Your task to perform on an android device: toggle show notifications on the lock screen Image 0: 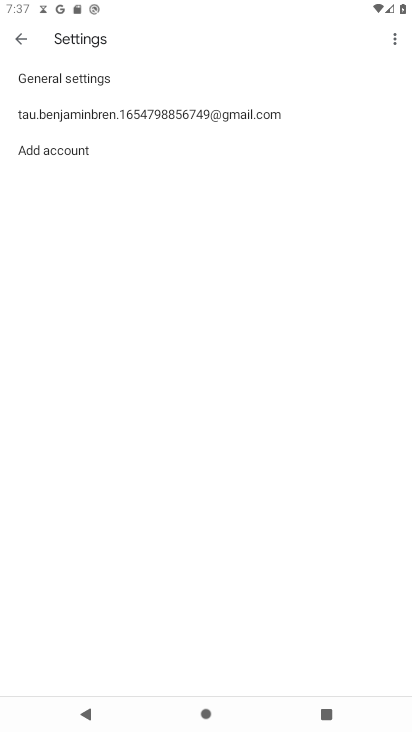
Step 0: press home button
Your task to perform on an android device: toggle show notifications on the lock screen Image 1: 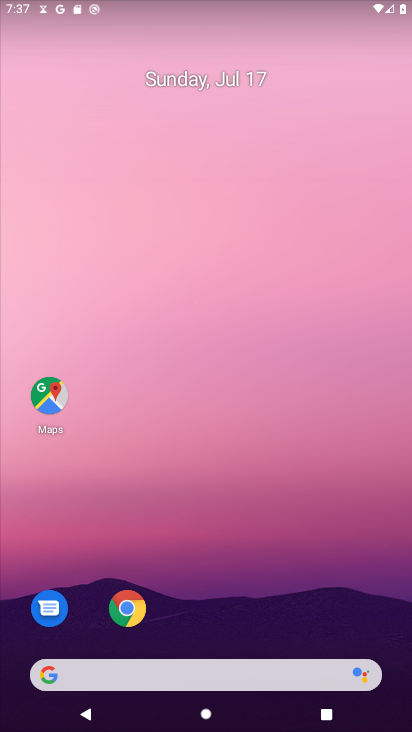
Step 1: drag from (290, 652) to (328, 377)
Your task to perform on an android device: toggle show notifications on the lock screen Image 2: 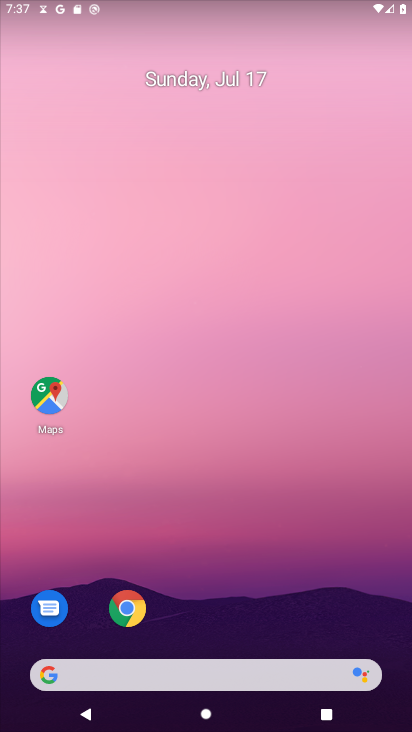
Step 2: drag from (153, 631) to (161, 193)
Your task to perform on an android device: toggle show notifications on the lock screen Image 3: 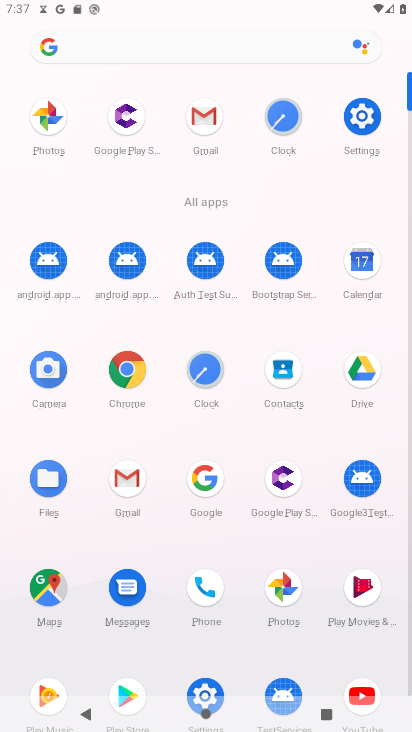
Step 3: click (372, 125)
Your task to perform on an android device: toggle show notifications on the lock screen Image 4: 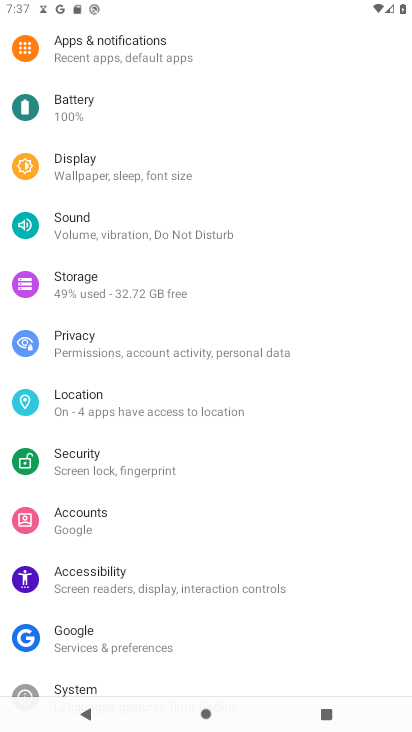
Step 4: click (75, 350)
Your task to perform on an android device: toggle show notifications on the lock screen Image 5: 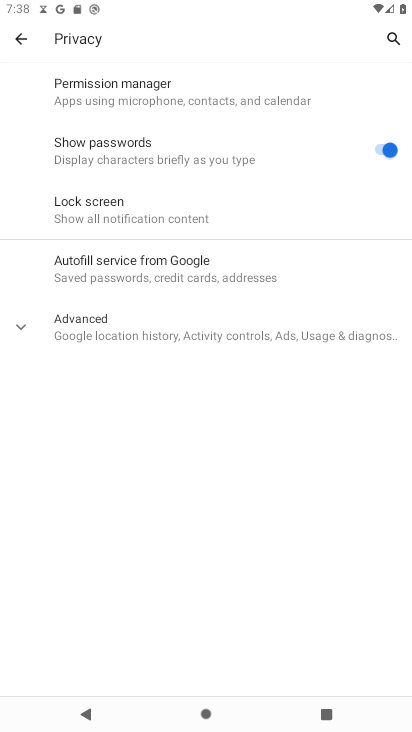
Step 5: click (92, 206)
Your task to perform on an android device: toggle show notifications on the lock screen Image 6: 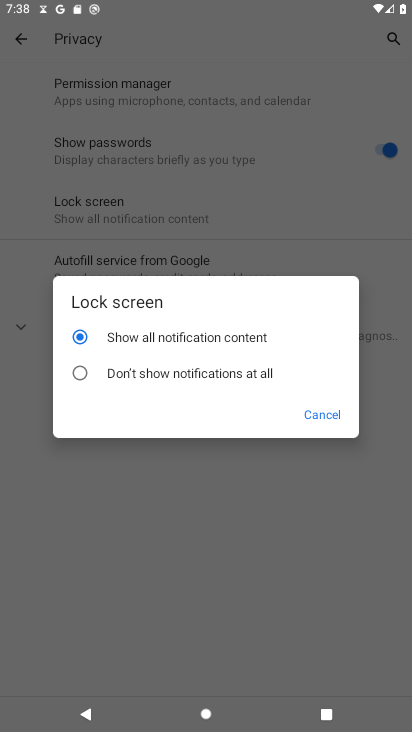
Step 6: click (93, 375)
Your task to perform on an android device: toggle show notifications on the lock screen Image 7: 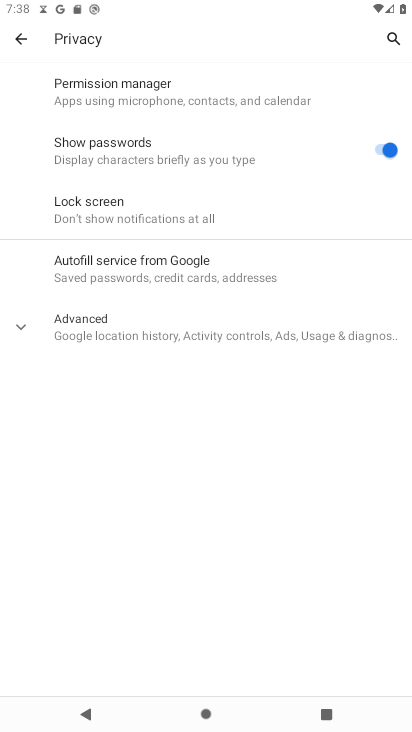
Step 7: task complete